Your task to perform on an android device: Check the news Image 0: 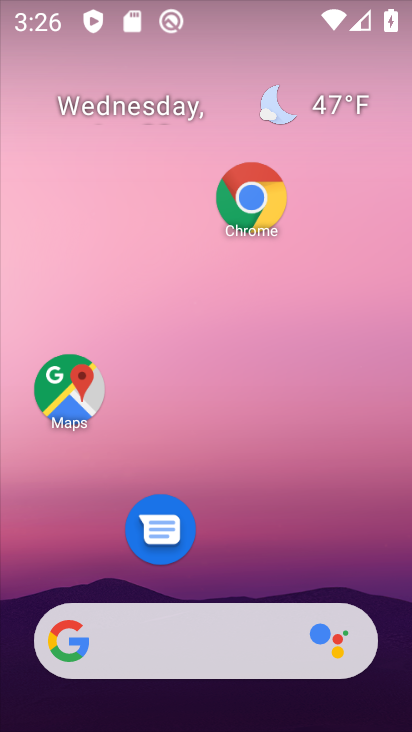
Step 0: drag from (241, 549) to (257, 90)
Your task to perform on an android device: Check the news Image 1: 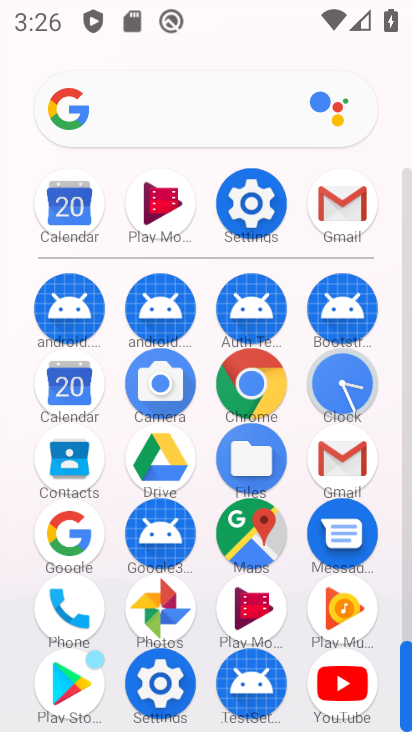
Step 1: click (74, 538)
Your task to perform on an android device: Check the news Image 2: 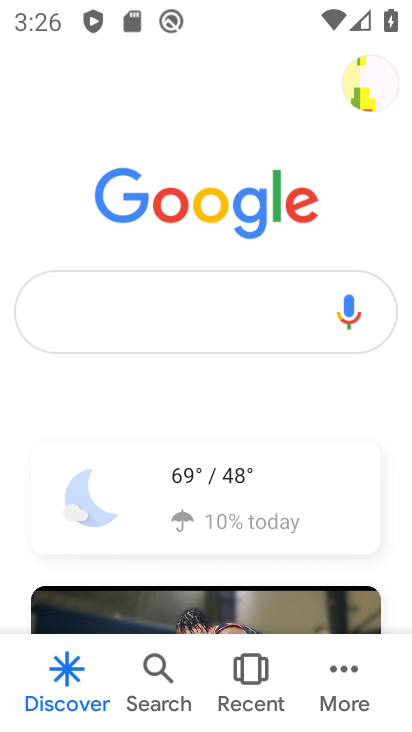
Step 2: task complete